Your task to perform on an android device: create a new album in the google photos Image 0: 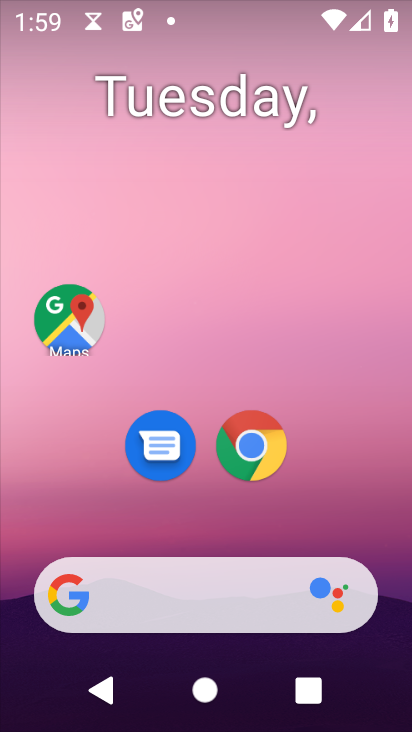
Step 0: drag from (361, 484) to (249, 0)
Your task to perform on an android device: create a new album in the google photos Image 1: 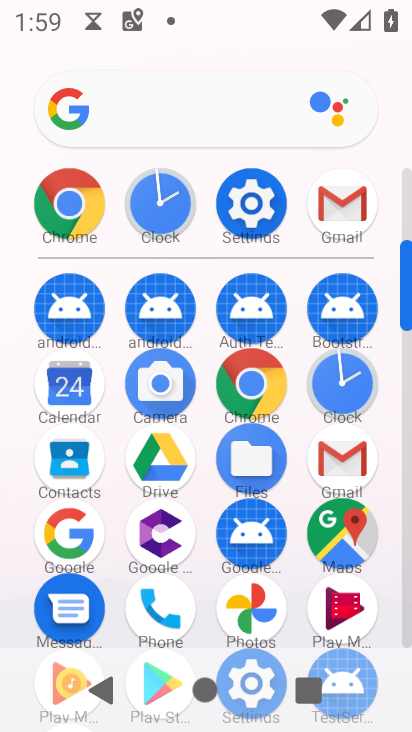
Step 1: click (247, 608)
Your task to perform on an android device: create a new album in the google photos Image 2: 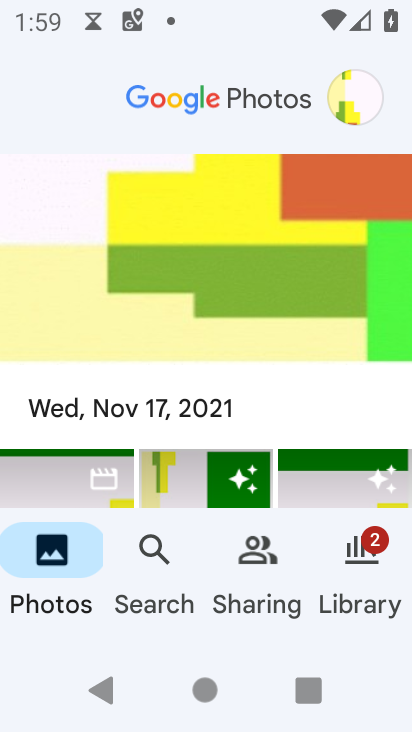
Step 2: task complete